Your task to perform on an android device: Open Google Chrome and click the shortcut for Amazon.com Image 0: 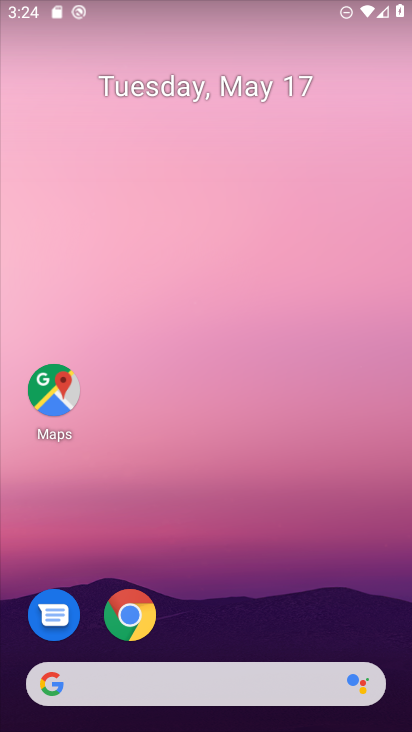
Step 0: click (134, 613)
Your task to perform on an android device: Open Google Chrome and click the shortcut for Amazon.com Image 1: 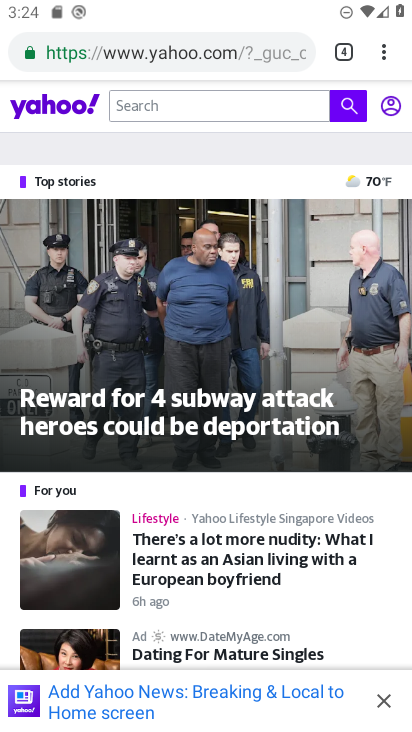
Step 1: click (385, 58)
Your task to perform on an android device: Open Google Chrome and click the shortcut for Amazon.com Image 2: 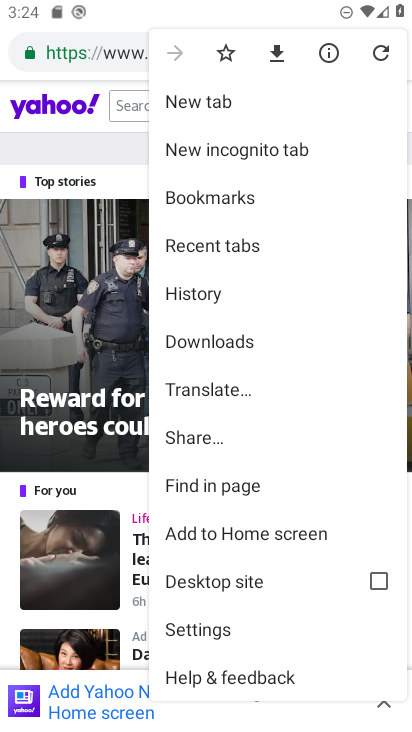
Step 2: click (208, 99)
Your task to perform on an android device: Open Google Chrome and click the shortcut for Amazon.com Image 3: 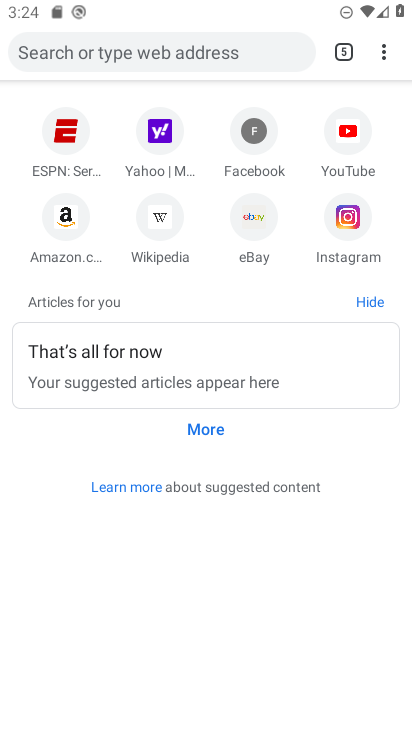
Step 3: click (55, 225)
Your task to perform on an android device: Open Google Chrome and click the shortcut for Amazon.com Image 4: 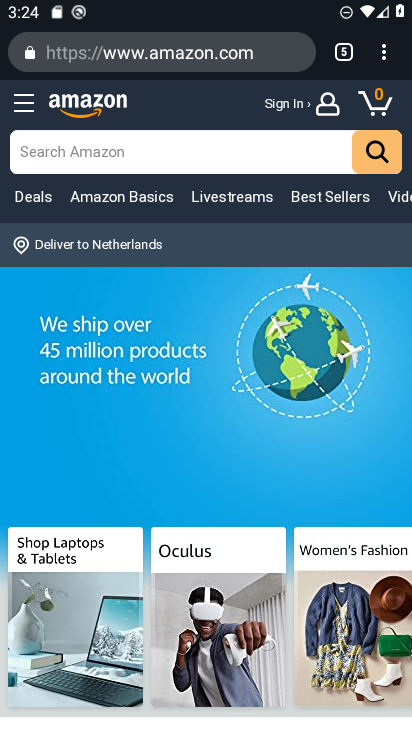
Step 4: task complete